Your task to perform on an android device: Open the calendar and show me this week's events? Image 0: 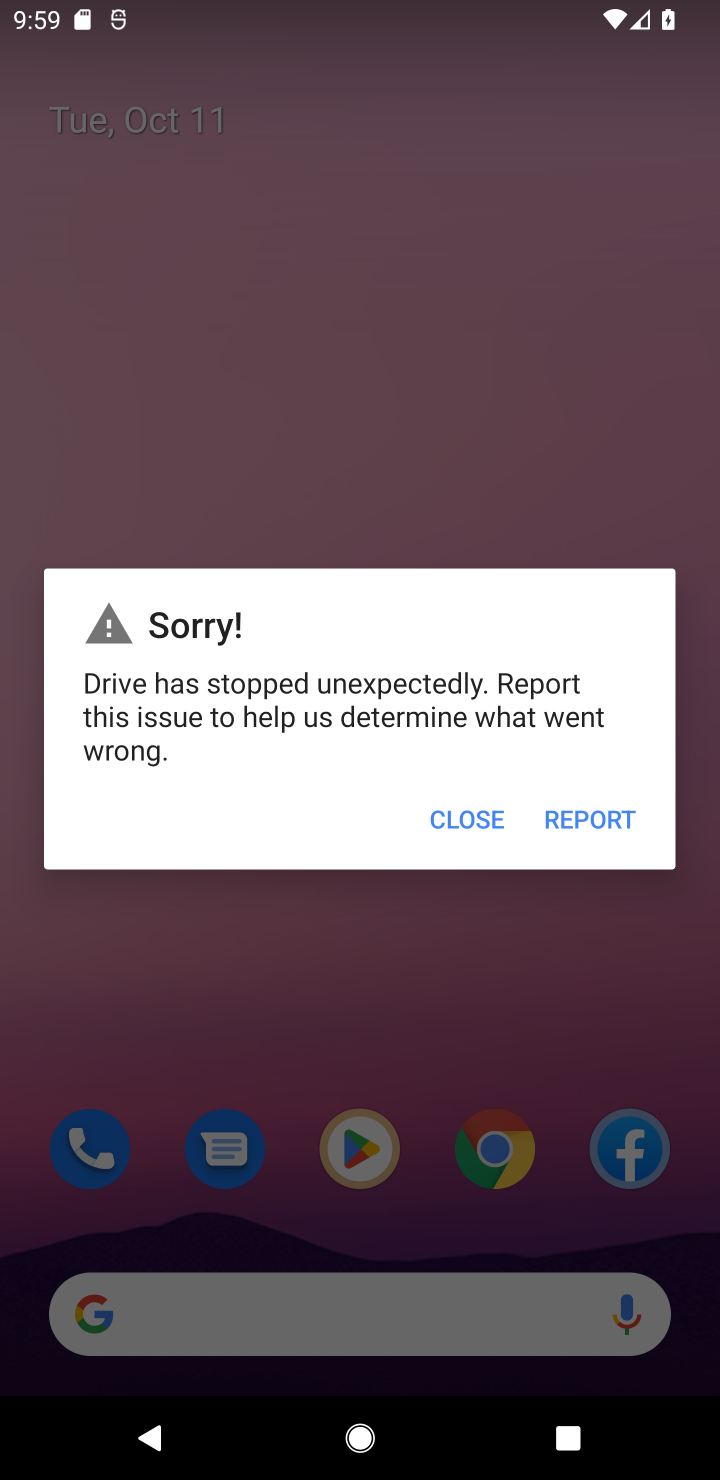
Step 0: click (461, 830)
Your task to perform on an android device: Open the calendar and show me this week's events? Image 1: 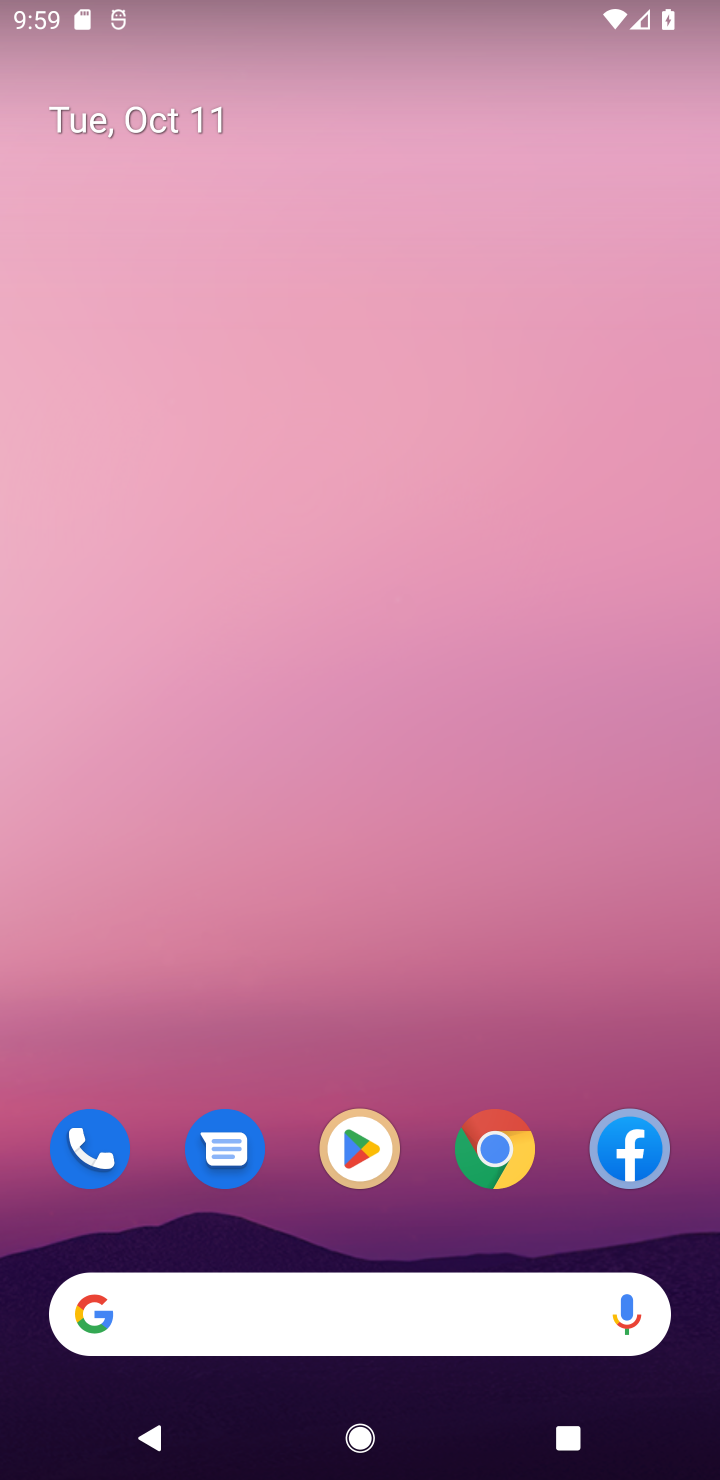
Step 1: drag from (383, 1197) to (239, 14)
Your task to perform on an android device: Open the calendar and show me this week's events? Image 2: 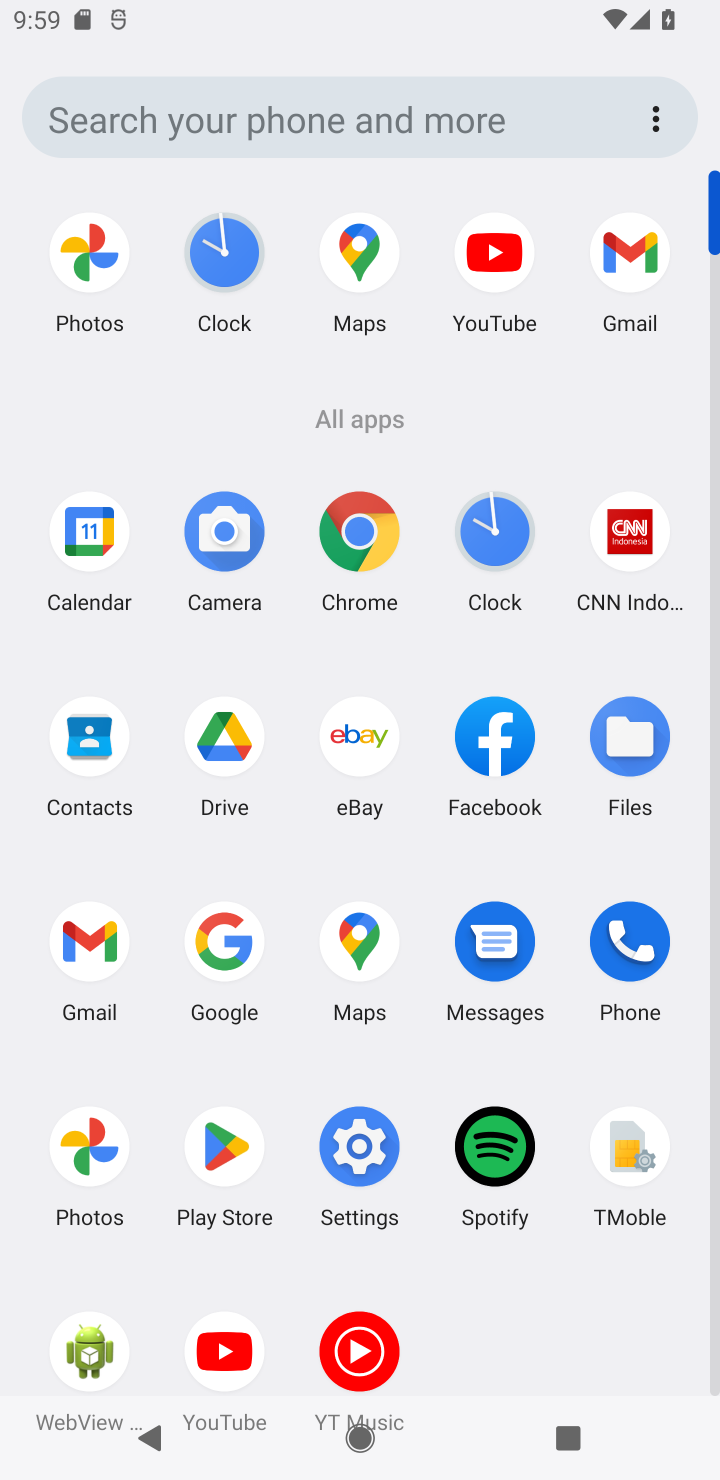
Step 2: click (80, 552)
Your task to perform on an android device: Open the calendar and show me this week's events? Image 3: 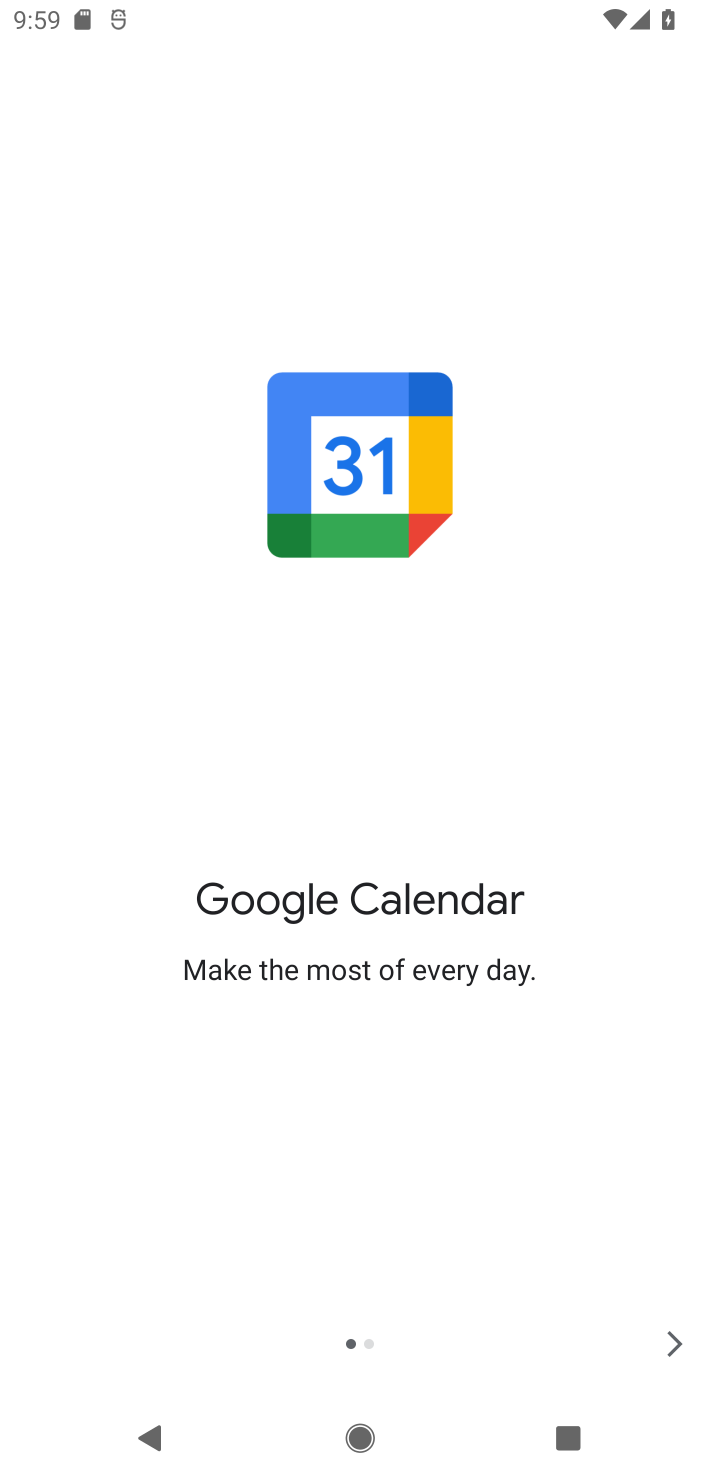
Step 3: click (680, 1342)
Your task to perform on an android device: Open the calendar and show me this week's events? Image 4: 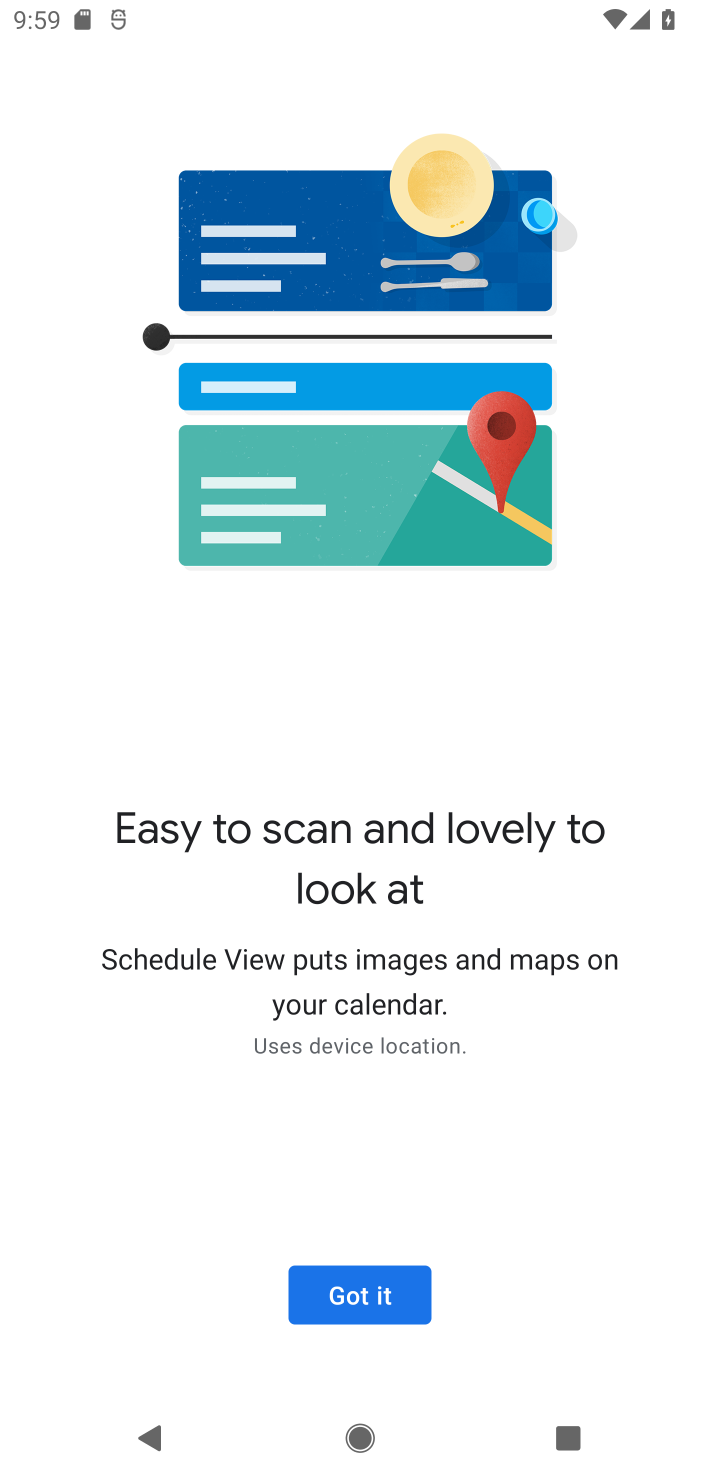
Step 4: click (388, 1287)
Your task to perform on an android device: Open the calendar and show me this week's events? Image 5: 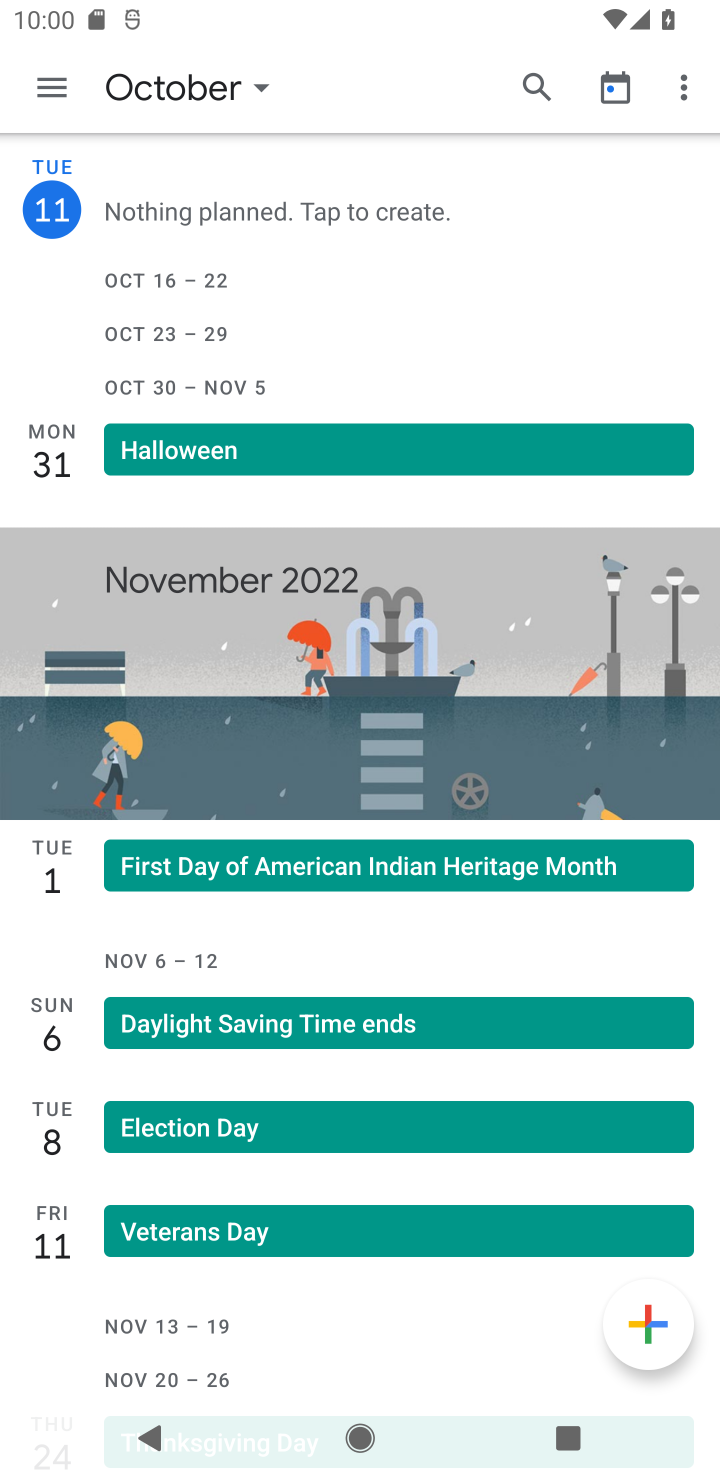
Step 5: click (42, 80)
Your task to perform on an android device: Open the calendar and show me this week's events? Image 6: 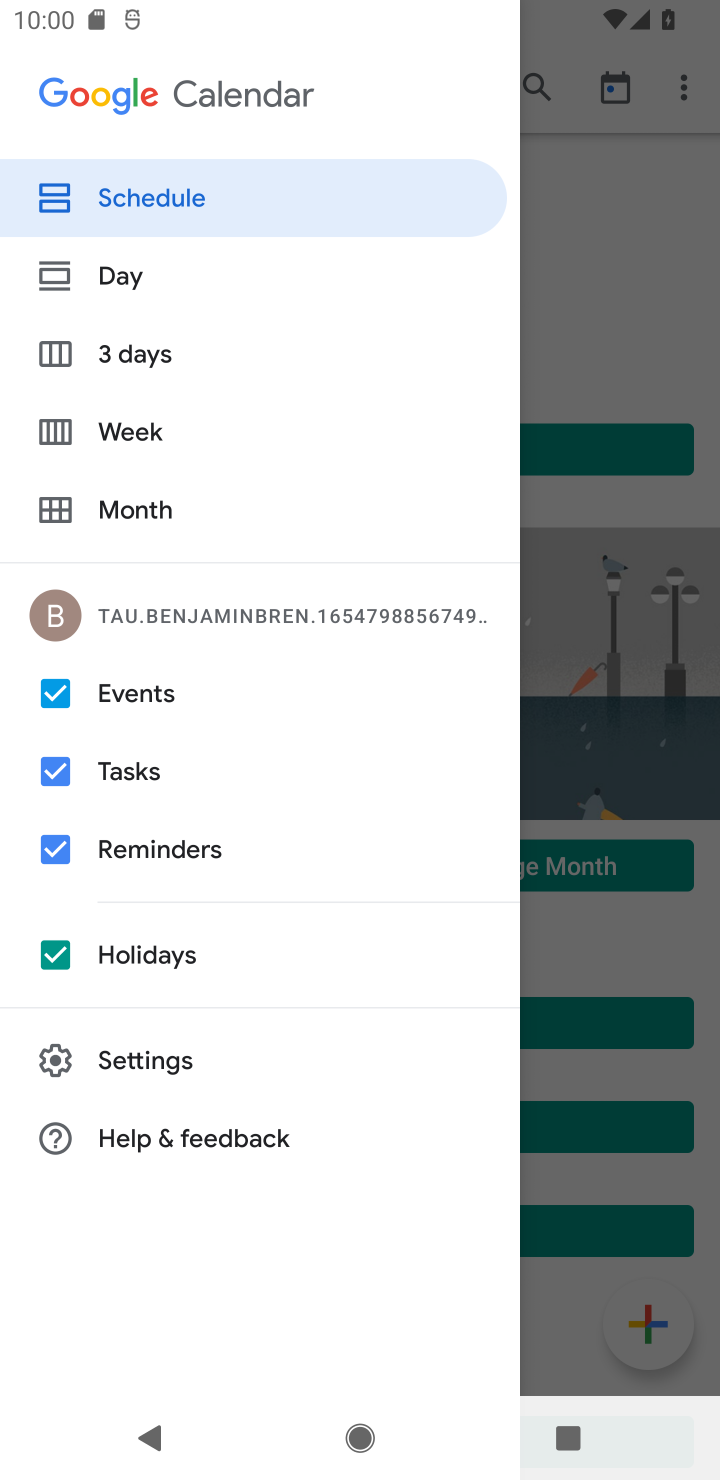
Step 6: click (105, 428)
Your task to perform on an android device: Open the calendar and show me this week's events? Image 7: 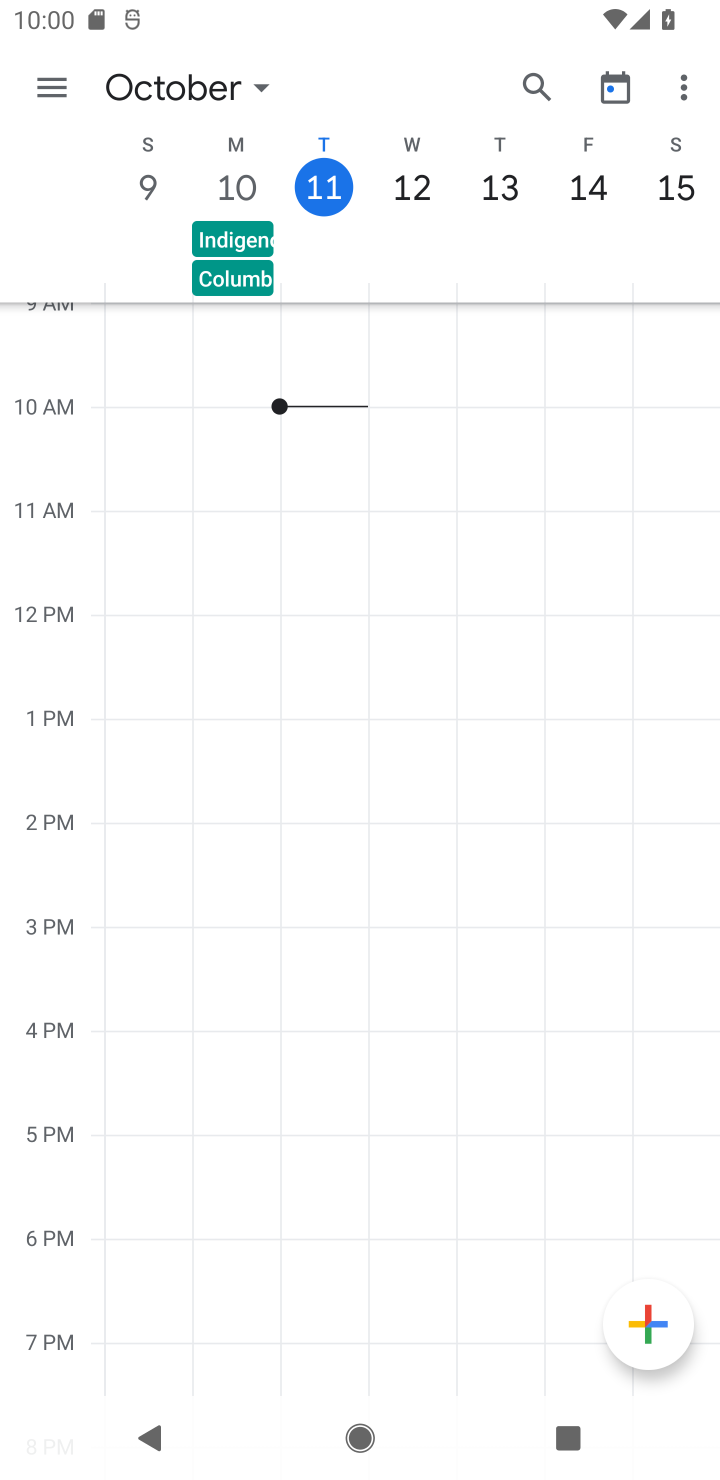
Step 7: task complete